Your task to perform on an android device: change the clock display to analog Image 0: 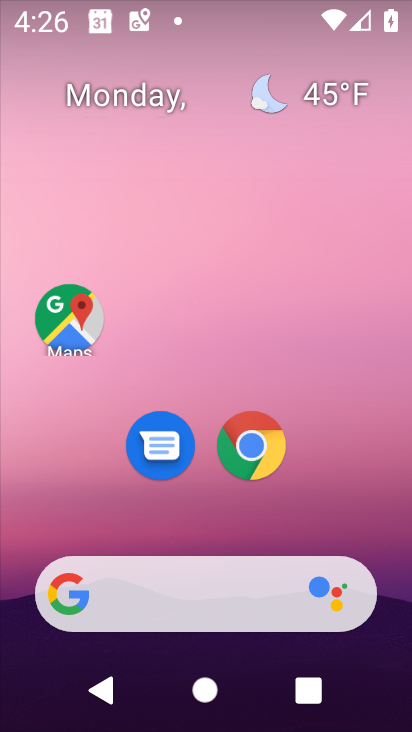
Step 0: drag from (367, 531) to (374, 22)
Your task to perform on an android device: change the clock display to analog Image 1: 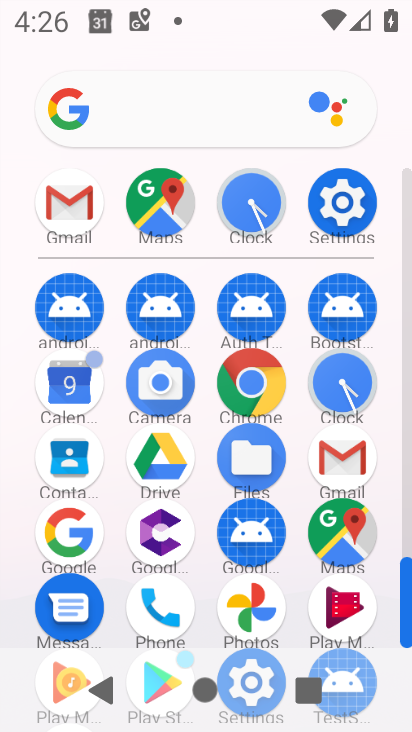
Step 1: click (352, 414)
Your task to perform on an android device: change the clock display to analog Image 2: 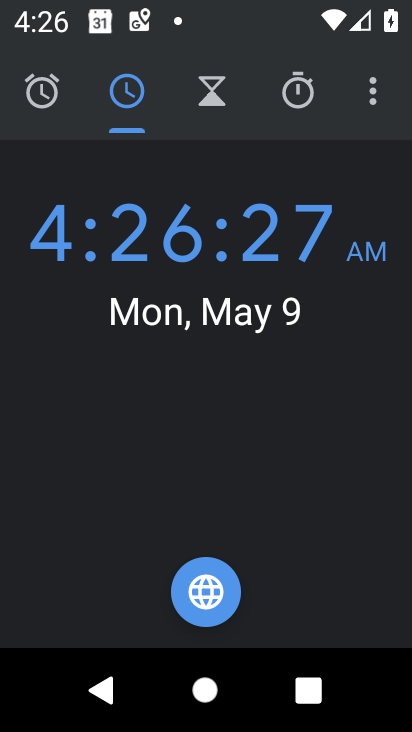
Step 2: click (369, 104)
Your task to perform on an android device: change the clock display to analog Image 3: 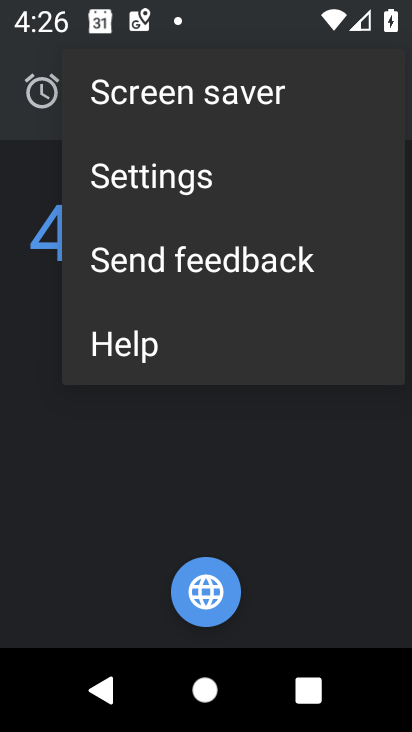
Step 3: click (222, 171)
Your task to perform on an android device: change the clock display to analog Image 4: 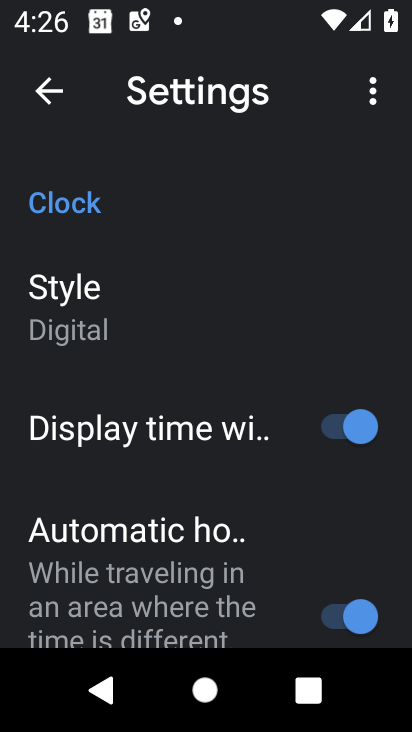
Step 4: click (107, 331)
Your task to perform on an android device: change the clock display to analog Image 5: 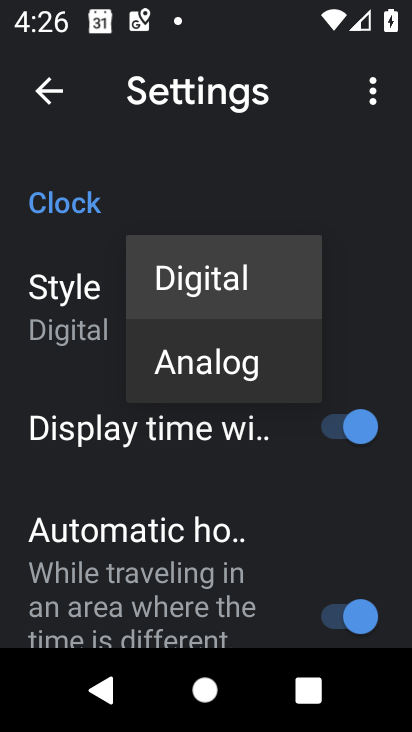
Step 5: click (239, 362)
Your task to perform on an android device: change the clock display to analog Image 6: 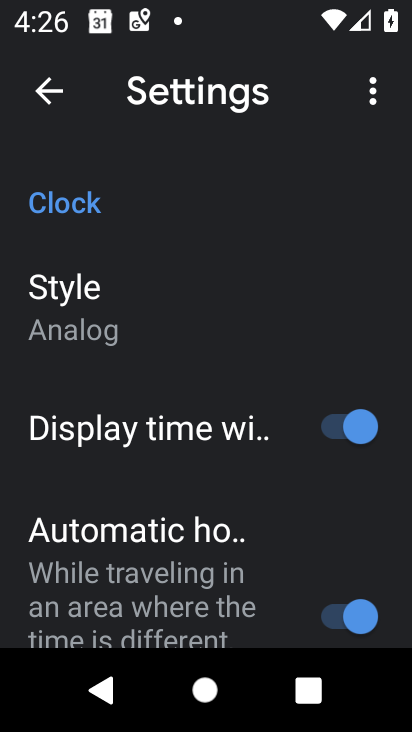
Step 6: task complete